Your task to perform on an android device: uninstall "Adobe Acrobat Reader" Image 0: 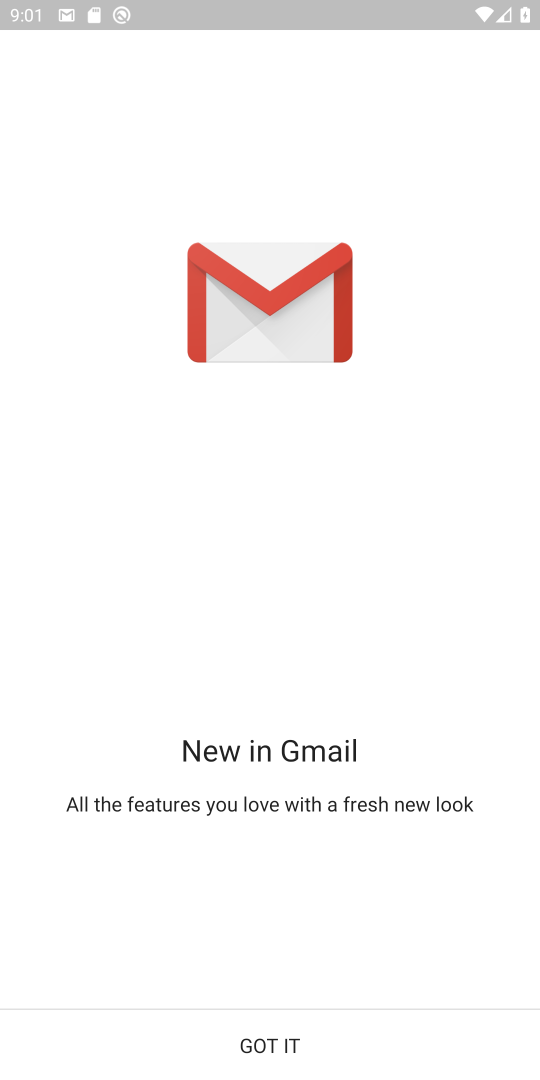
Step 0: press home button
Your task to perform on an android device: uninstall "Adobe Acrobat Reader" Image 1: 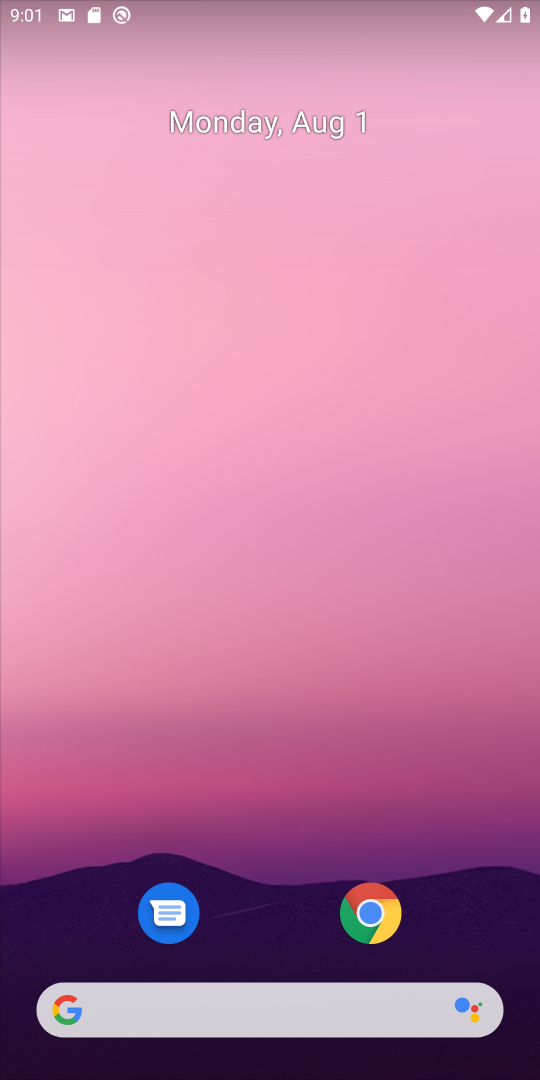
Step 1: drag from (216, 1008) to (245, 139)
Your task to perform on an android device: uninstall "Adobe Acrobat Reader" Image 2: 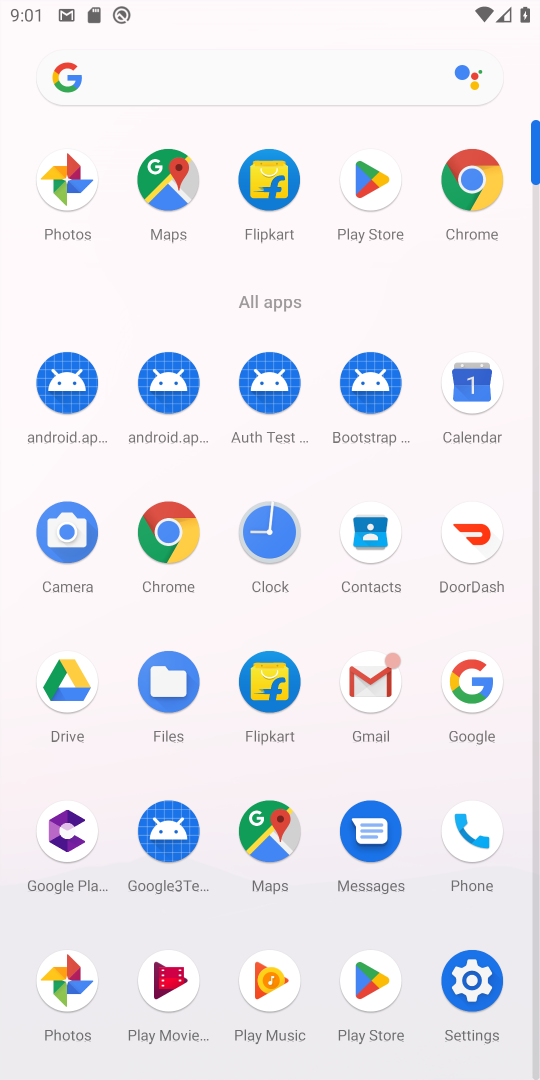
Step 2: click (358, 178)
Your task to perform on an android device: uninstall "Adobe Acrobat Reader" Image 3: 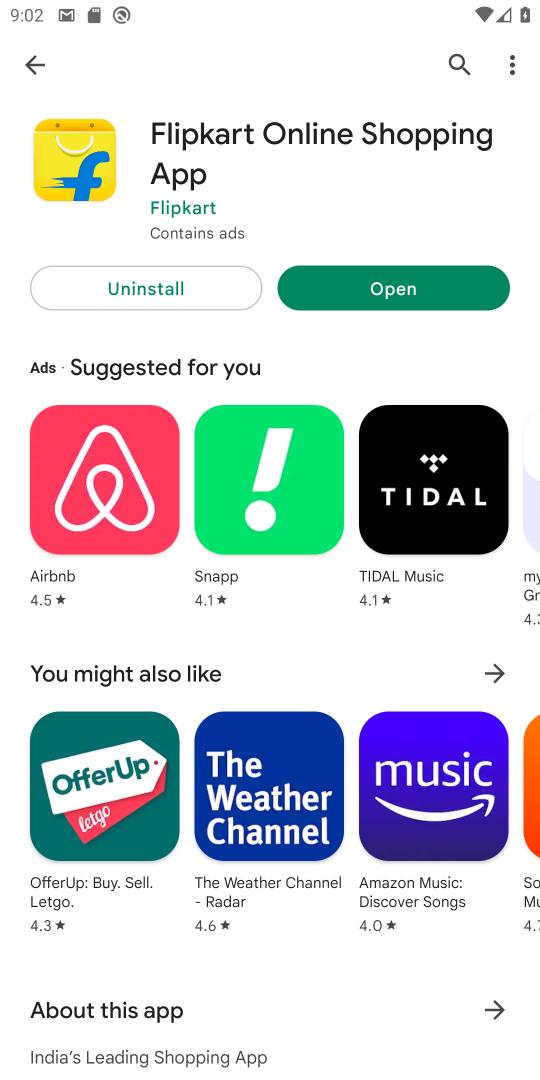
Step 3: click (440, 60)
Your task to perform on an android device: uninstall "Adobe Acrobat Reader" Image 4: 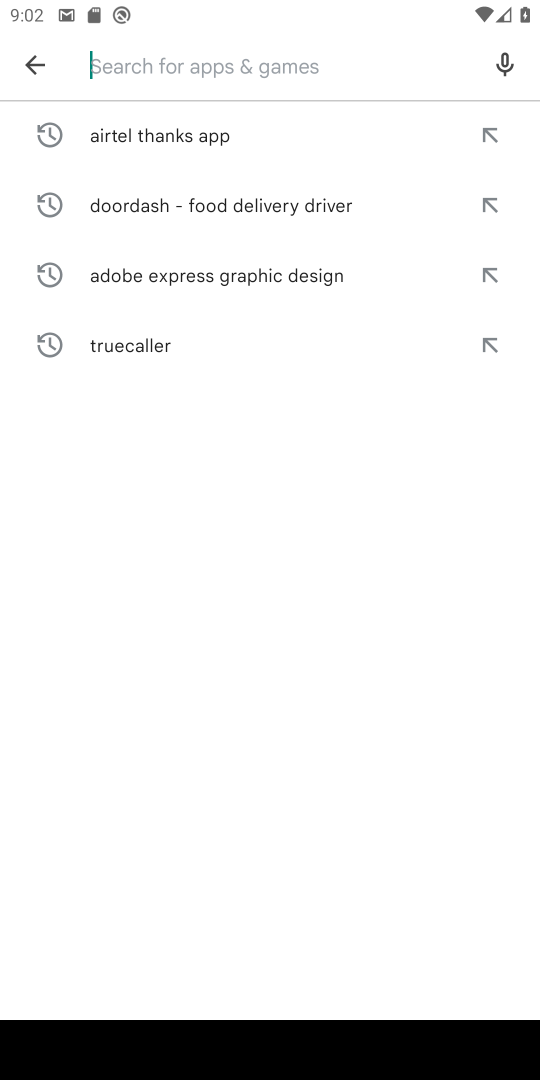
Step 4: type "Adobe Acrobat Reader"
Your task to perform on an android device: uninstall "Adobe Acrobat Reader" Image 5: 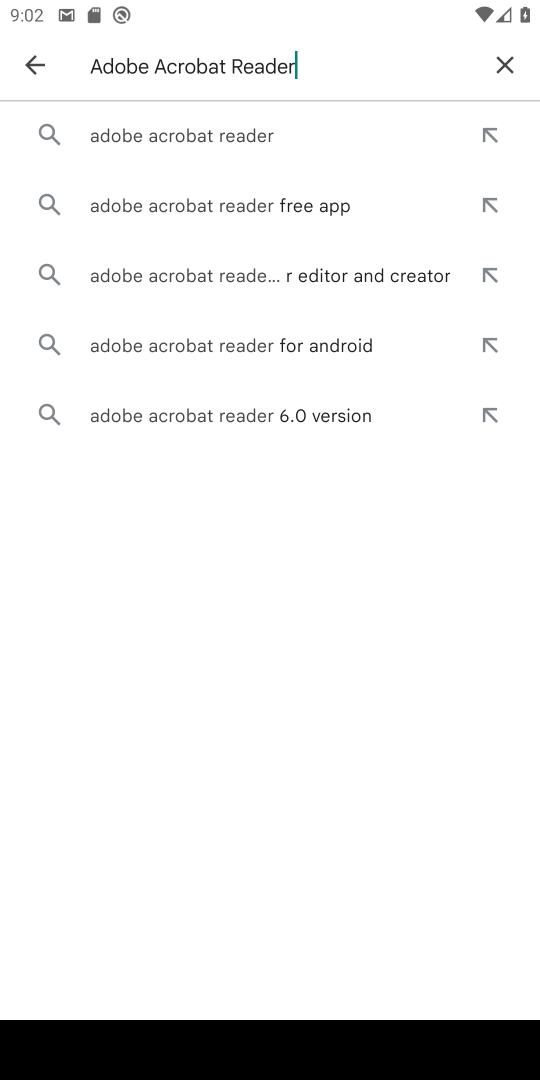
Step 5: click (208, 136)
Your task to perform on an android device: uninstall "Adobe Acrobat Reader" Image 6: 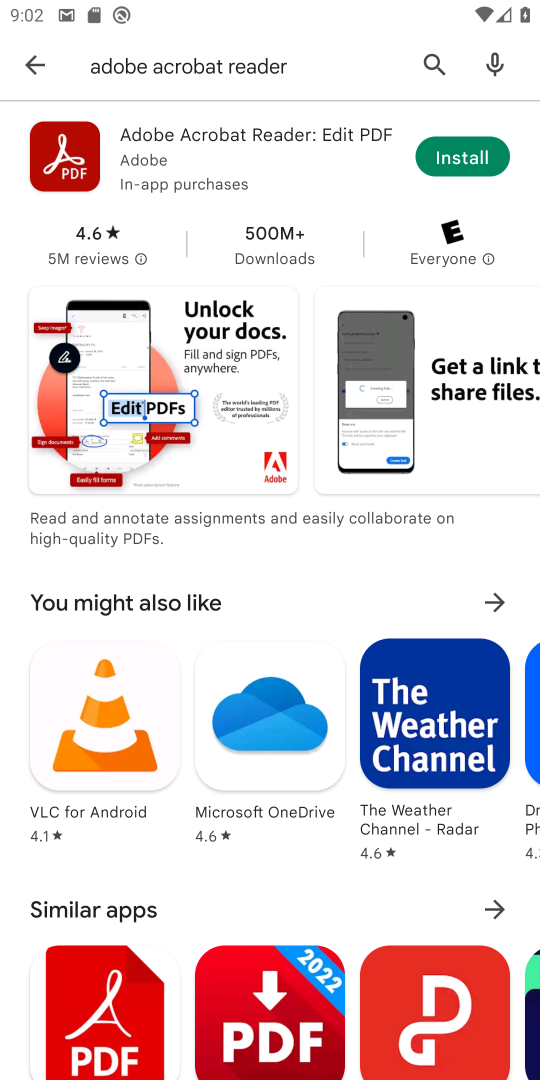
Step 6: task complete